Your task to perform on an android device: Go to Android settings Image 0: 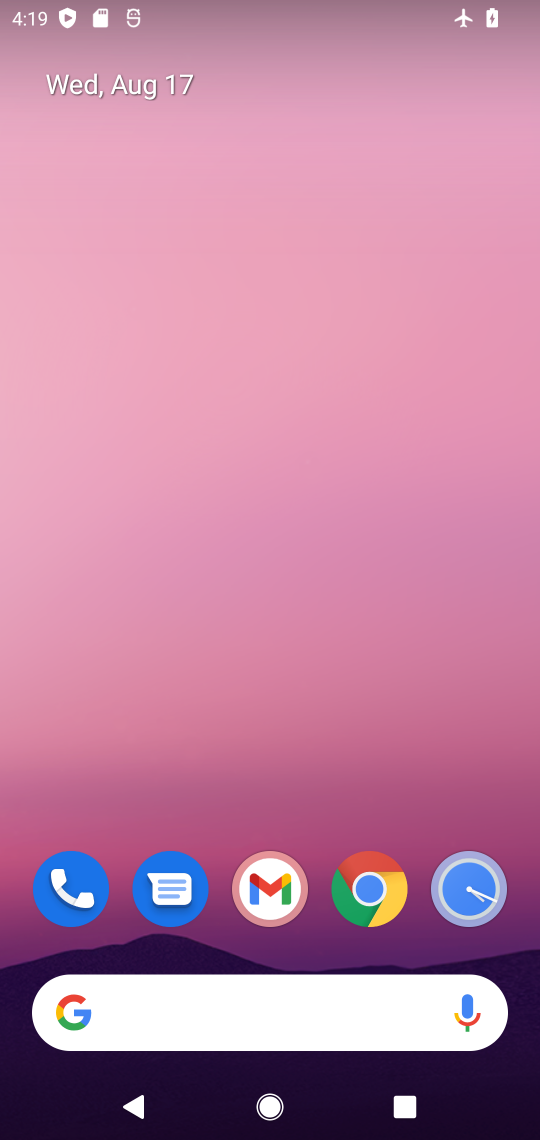
Step 0: drag from (284, 819) to (241, 77)
Your task to perform on an android device: Go to Android settings Image 1: 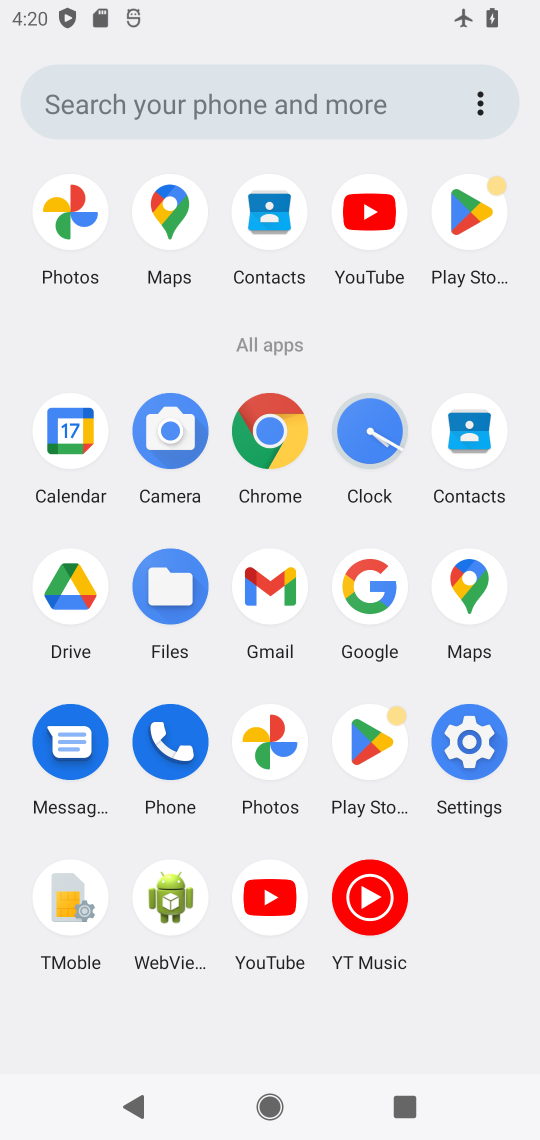
Step 1: click (468, 741)
Your task to perform on an android device: Go to Android settings Image 2: 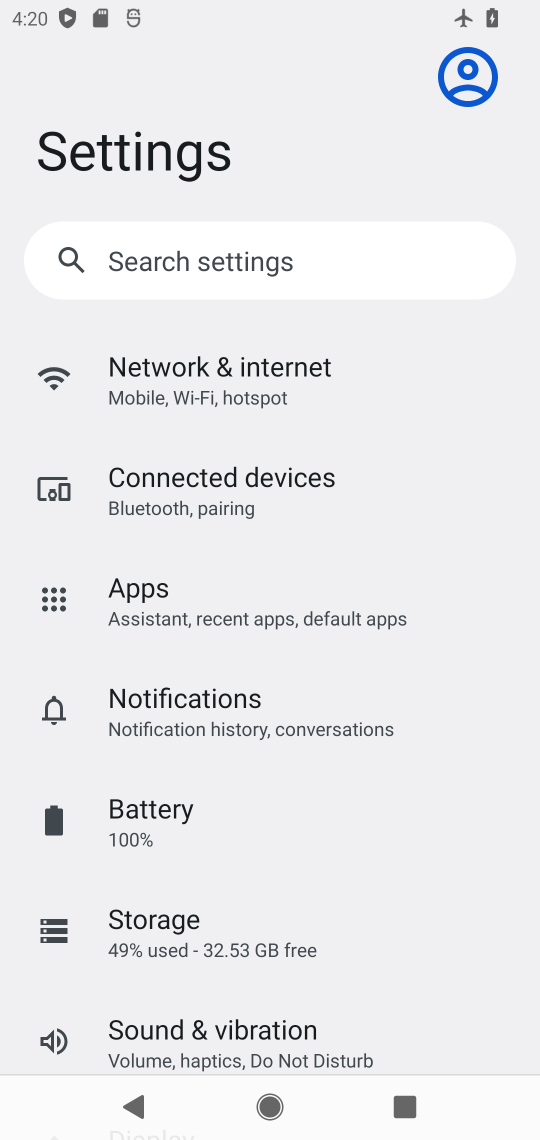
Step 2: task complete